Your task to perform on an android device: set the timer Image 0: 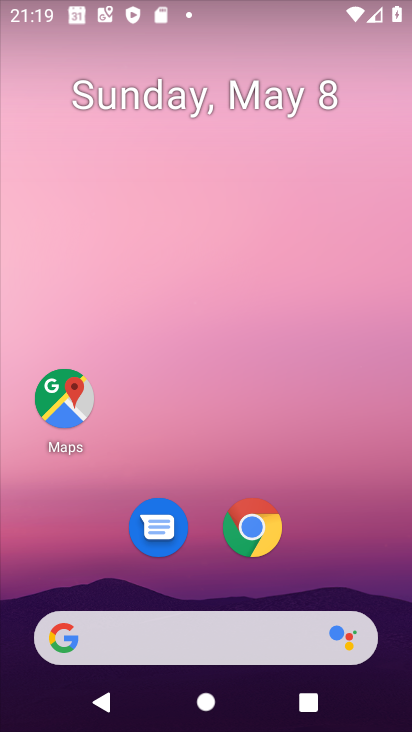
Step 0: drag from (197, 559) to (226, 74)
Your task to perform on an android device: set the timer Image 1: 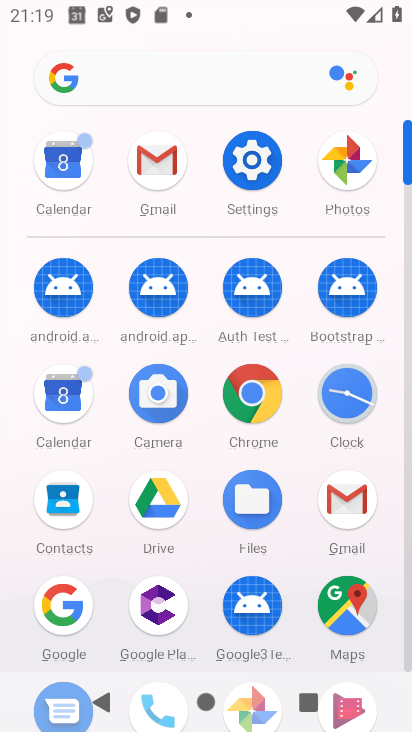
Step 1: click (345, 395)
Your task to perform on an android device: set the timer Image 2: 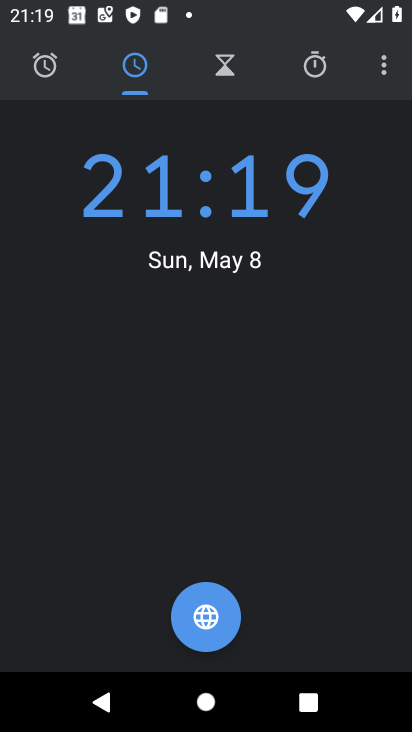
Step 2: click (220, 50)
Your task to perform on an android device: set the timer Image 3: 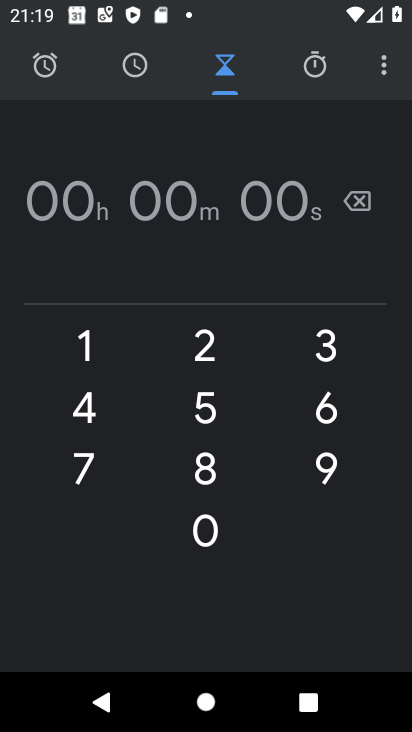
Step 3: click (207, 365)
Your task to perform on an android device: set the timer Image 4: 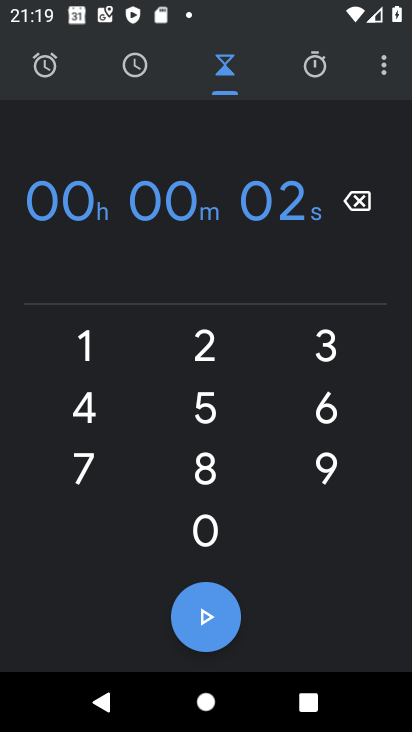
Step 4: click (205, 365)
Your task to perform on an android device: set the timer Image 5: 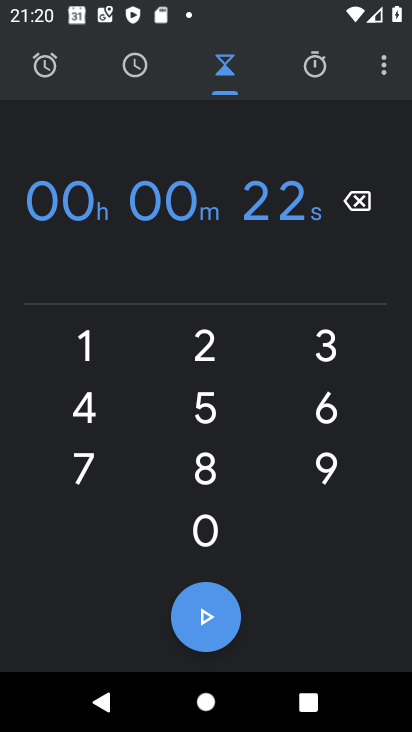
Step 5: task complete